Your task to perform on an android device: Go to CNN.com Image 0: 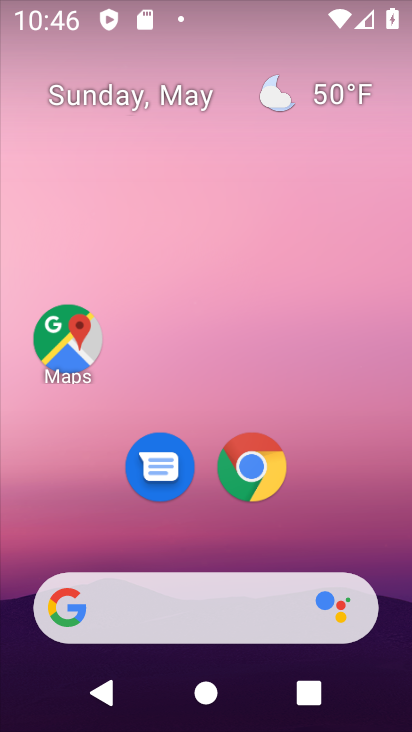
Step 0: click (262, 470)
Your task to perform on an android device: Go to CNN.com Image 1: 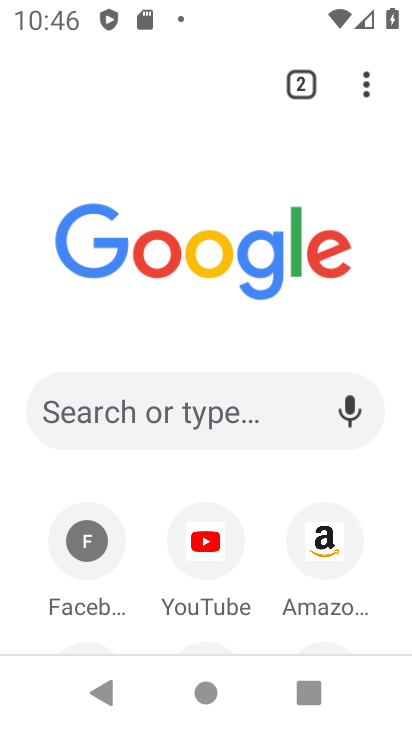
Step 1: drag from (256, 574) to (316, 293)
Your task to perform on an android device: Go to CNN.com Image 2: 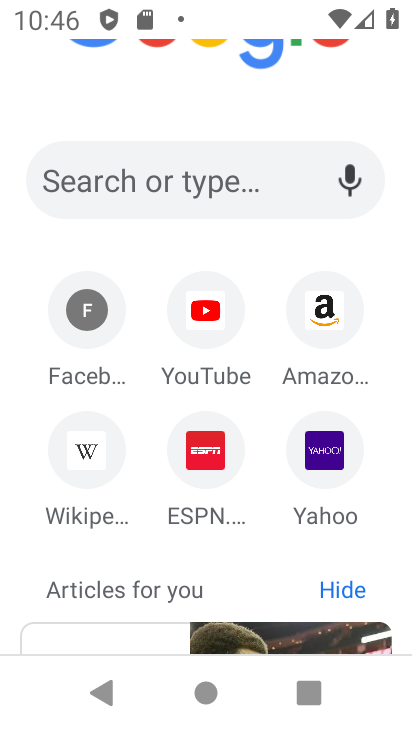
Step 2: click (214, 181)
Your task to perform on an android device: Go to CNN.com Image 3: 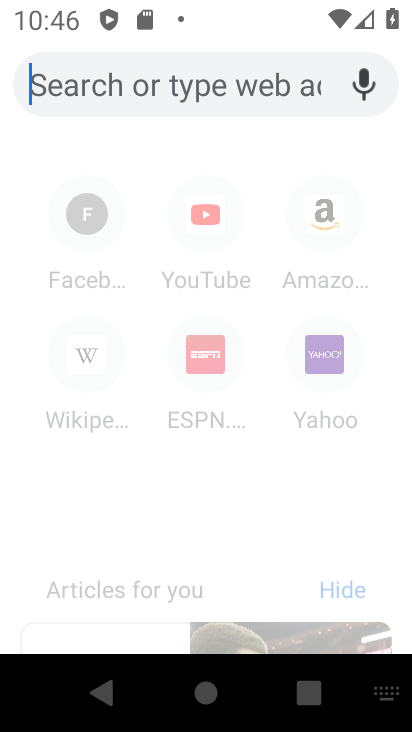
Step 3: type "CNN.com"
Your task to perform on an android device: Go to CNN.com Image 4: 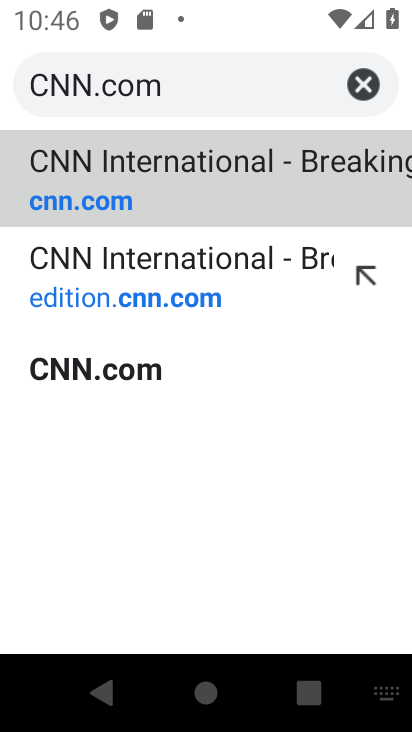
Step 4: click (185, 370)
Your task to perform on an android device: Go to CNN.com Image 5: 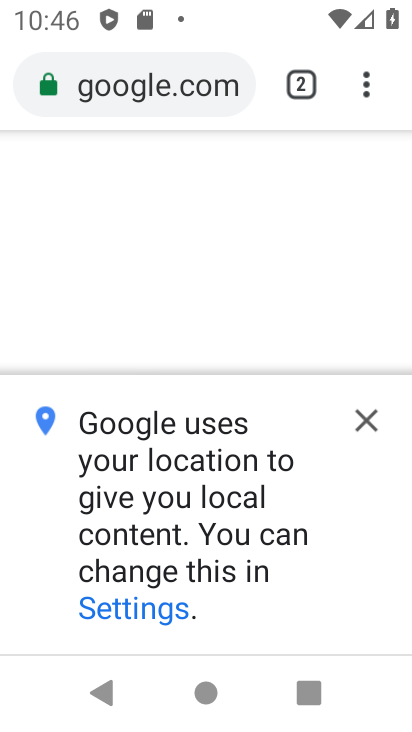
Step 5: click (358, 414)
Your task to perform on an android device: Go to CNN.com Image 6: 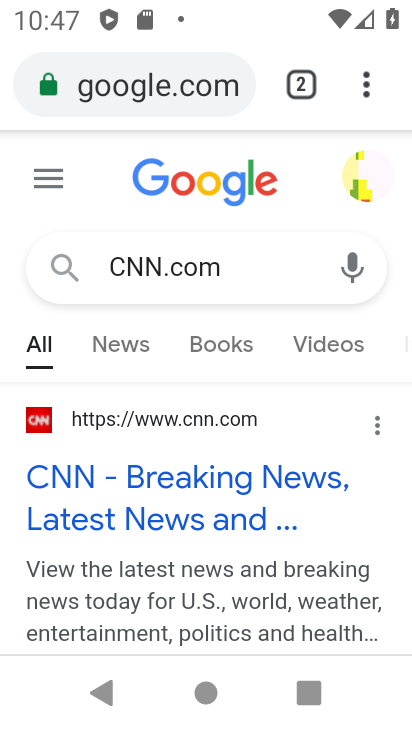
Step 6: click (161, 502)
Your task to perform on an android device: Go to CNN.com Image 7: 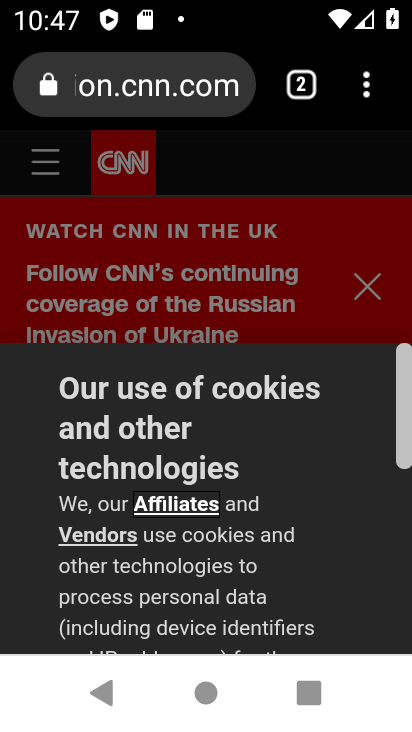
Step 7: task complete